Your task to perform on an android device: Open internet settings Image 0: 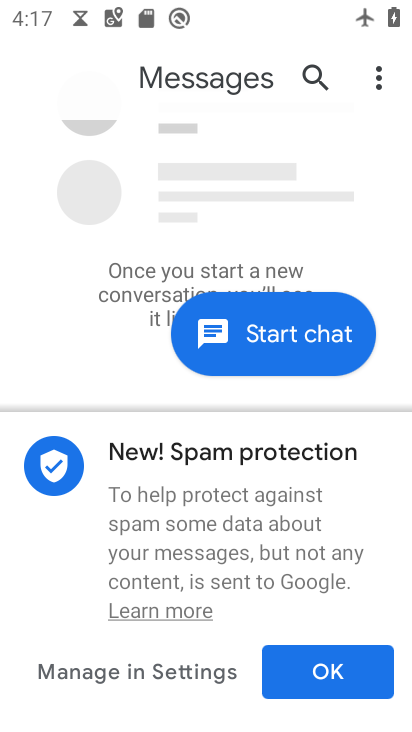
Step 0: press home button
Your task to perform on an android device: Open internet settings Image 1: 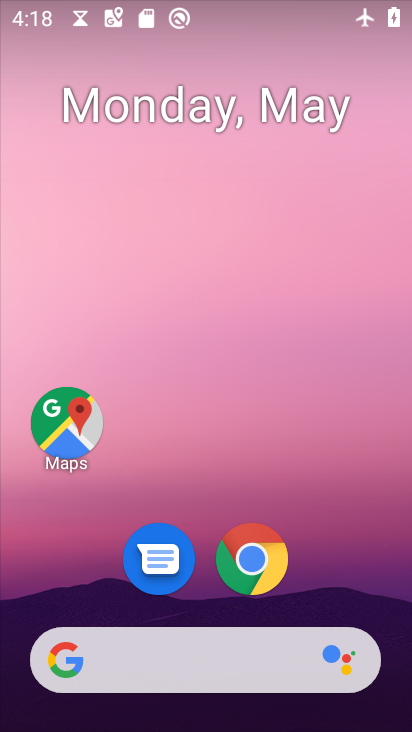
Step 1: drag from (327, 277) to (320, 173)
Your task to perform on an android device: Open internet settings Image 2: 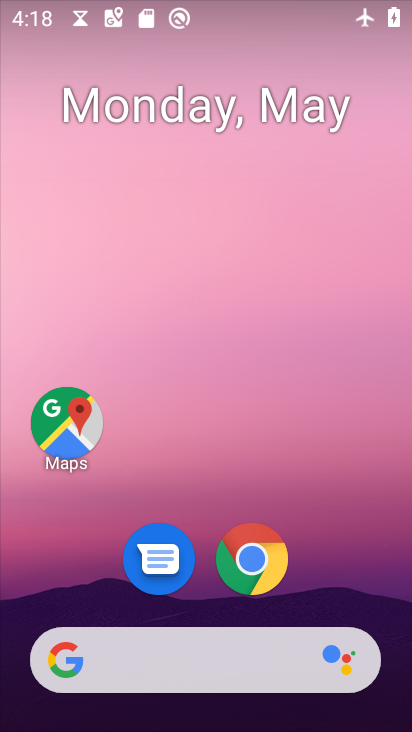
Step 2: drag from (312, 604) to (329, 131)
Your task to perform on an android device: Open internet settings Image 3: 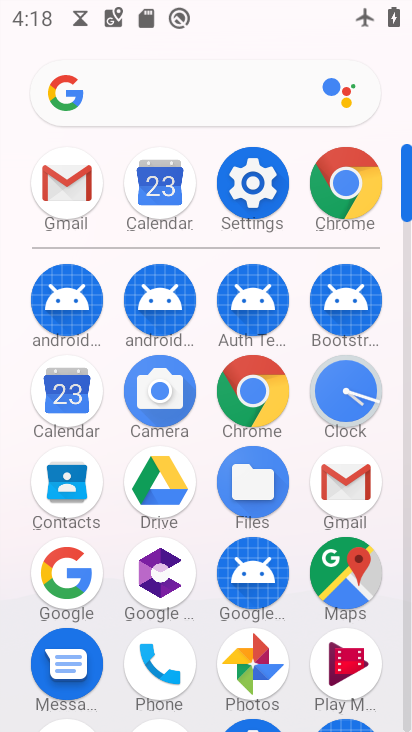
Step 3: click (247, 185)
Your task to perform on an android device: Open internet settings Image 4: 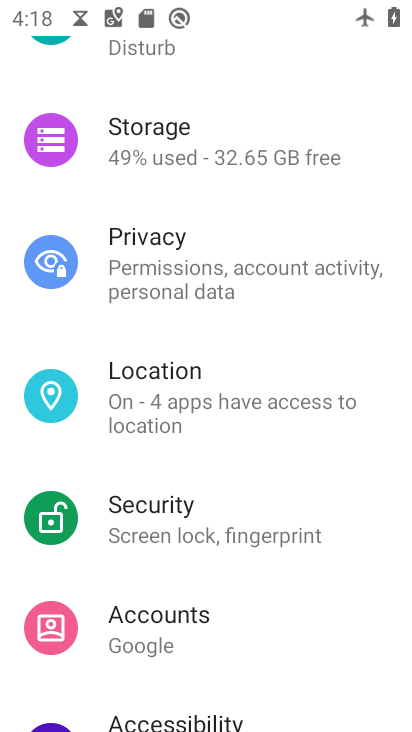
Step 4: drag from (253, 151) to (188, 487)
Your task to perform on an android device: Open internet settings Image 5: 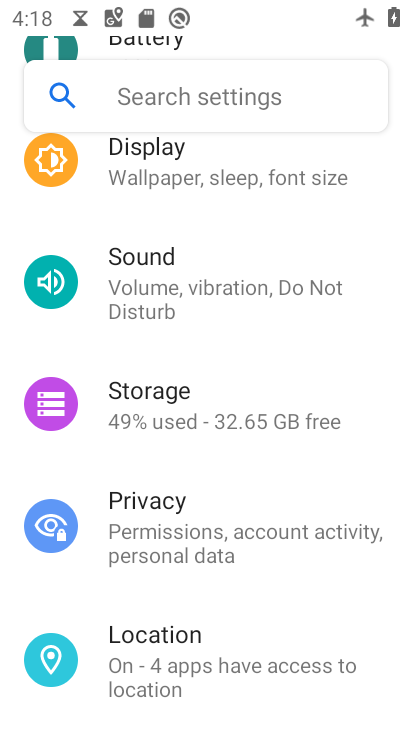
Step 5: drag from (255, 290) to (236, 571)
Your task to perform on an android device: Open internet settings Image 6: 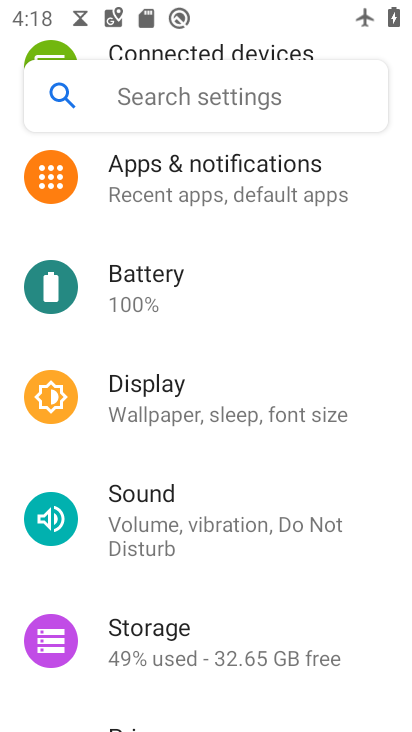
Step 6: drag from (254, 313) to (256, 545)
Your task to perform on an android device: Open internet settings Image 7: 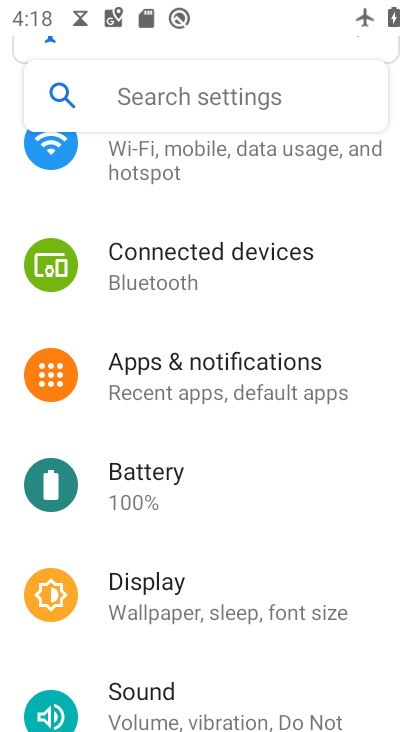
Step 7: drag from (282, 220) to (257, 496)
Your task to perform on an android device: Open internet settings Image 8: 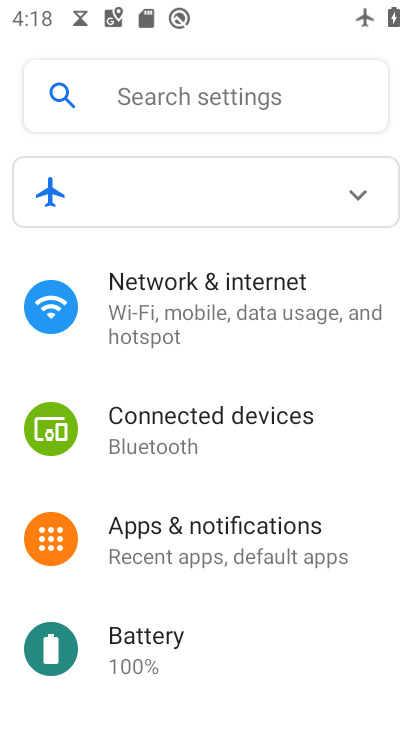
Step 8: click (211, 321)
Your task to perform on an android device: Open internet settings Image 9: 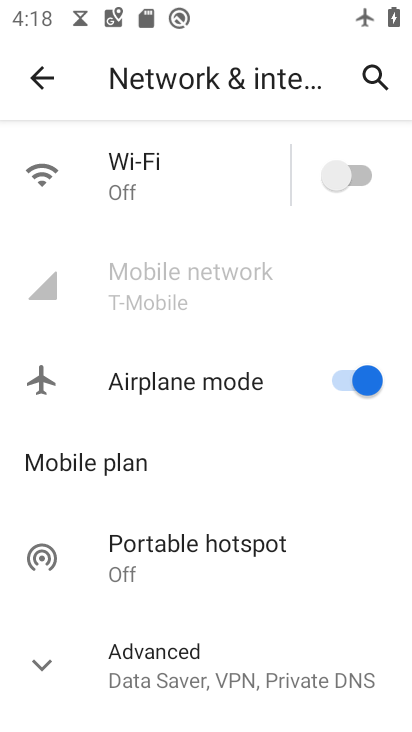
Step 9: task complete